Your task to perform on an android device: Open Yahoo.com Image 0: 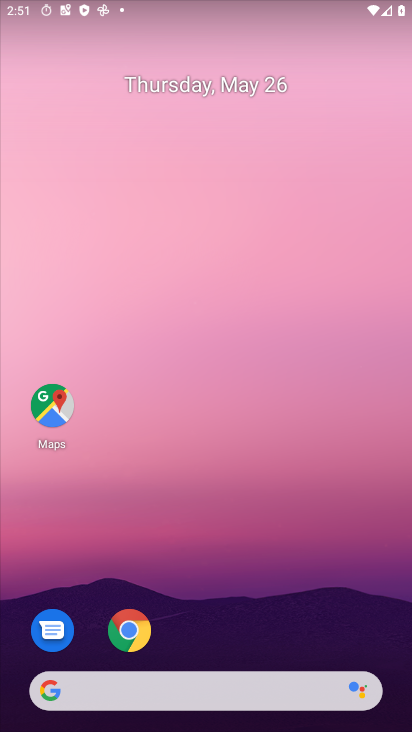
Step 0: click (130, 627)
Your task to perform on an android device: Open Yahoo.com Image 1: 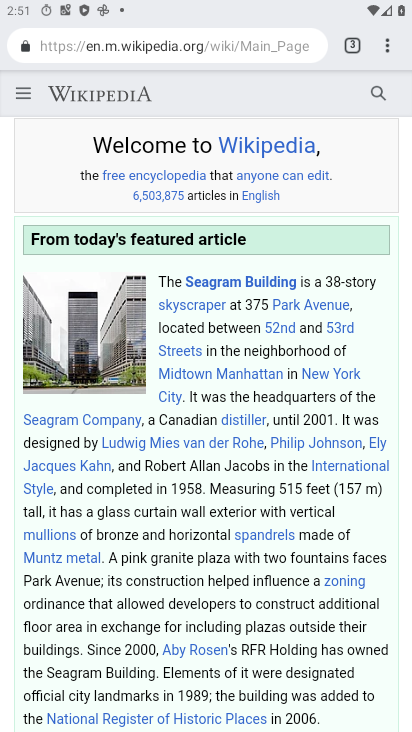
Step 1: click (360, 52)
Your task to perform on an android device: Open Yahoo.com Image 2: 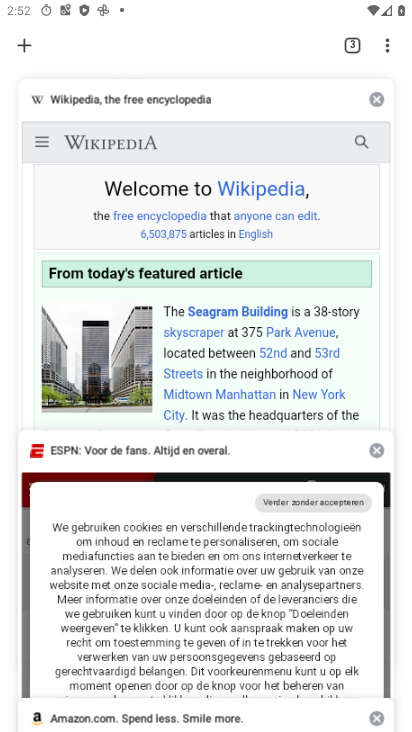
Step 2: click (27, 57)
Your task to perform on an android device: Open Yahoo.com Image 3: 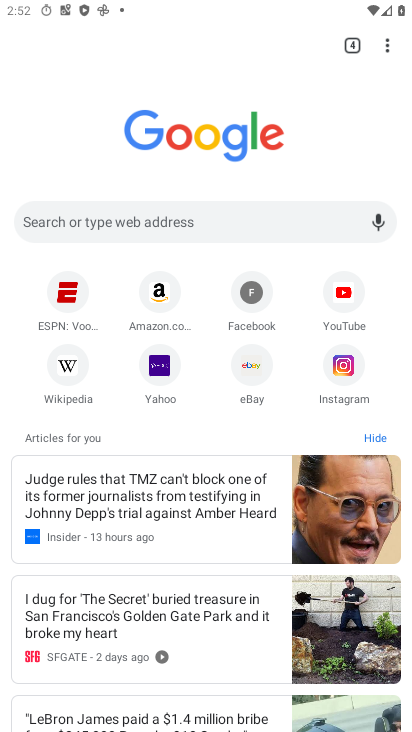
Step 3: click (145, 358)
Your task to perform on an android device: Open Yahoo.com Image 4: 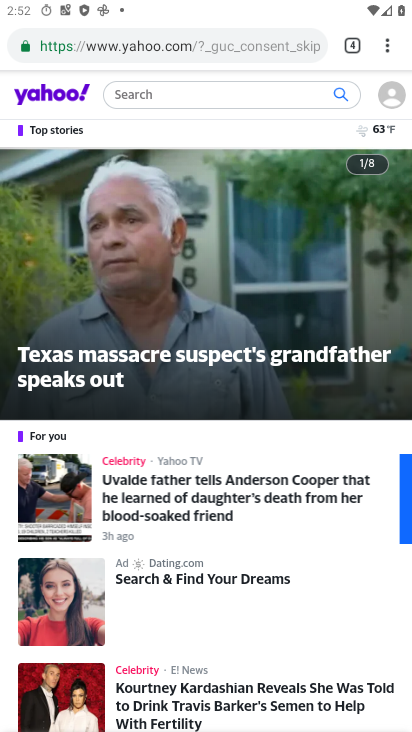
Step 4: task complete